Your task to perform on an android device: change your default location settings in chrome Image 0: 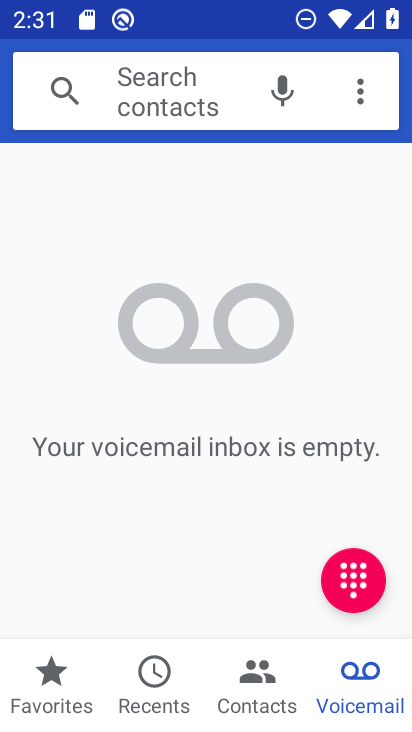
Step 0: press home button
Your task to perform on an android device: change your default location settings in chrome Image 1: 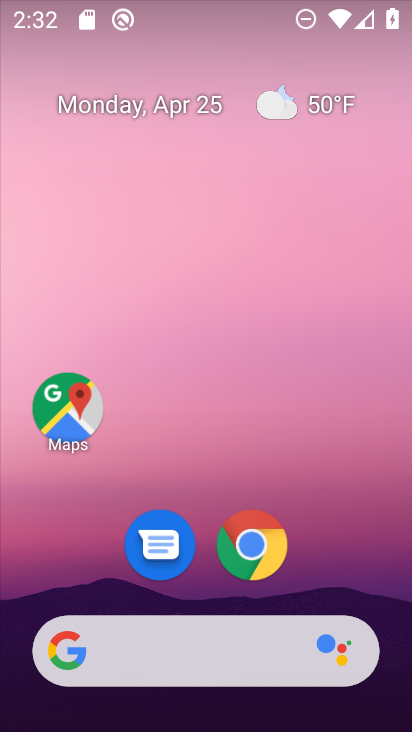
Step 1: click (224, 547)
Your task to perform on an android device: change your default location settings in chrome Image 2: 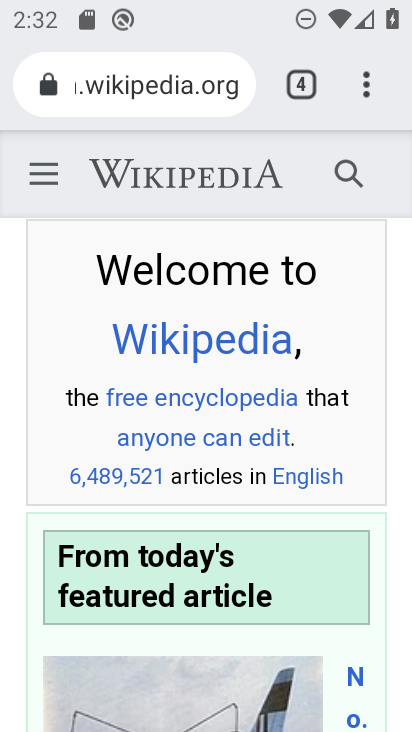
Step 2: click (368, 81)
Your task to perform on an android device: change your default location settings in chrome Image 3: 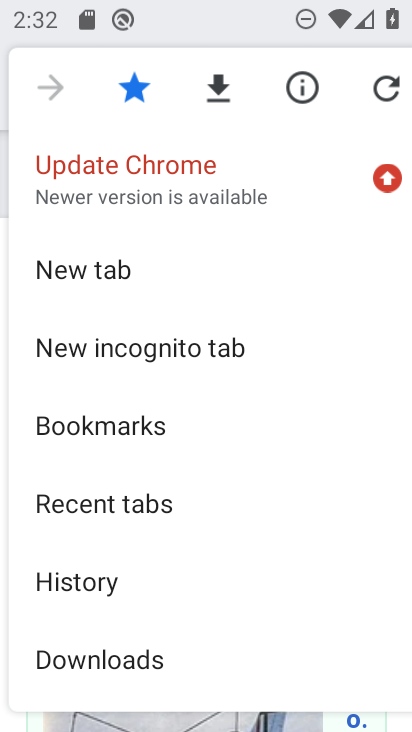
Step 3: drag from (225, 612) to (215, 209)
Your task to perform on an android device: change your default location settings in chrome Image 4: 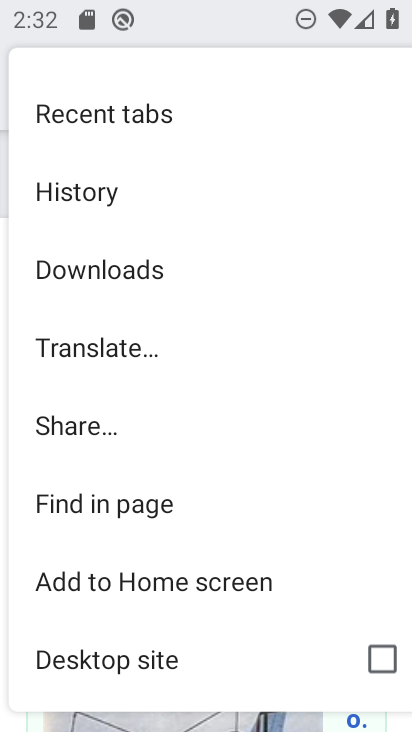
Step 4: drag from (206, 592) to (223, 133)
Your task to perform on an android device: change your default location settings in chrome Image 5: 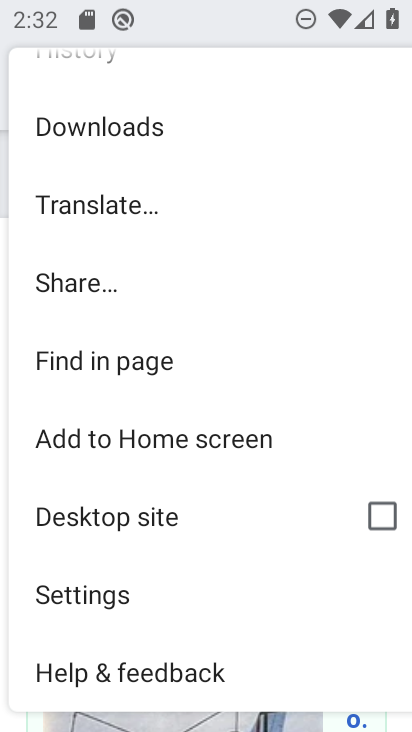
Step 5: click (122, 582)
Your task to perform on an android device: change your default location settings in chrome Image 6: 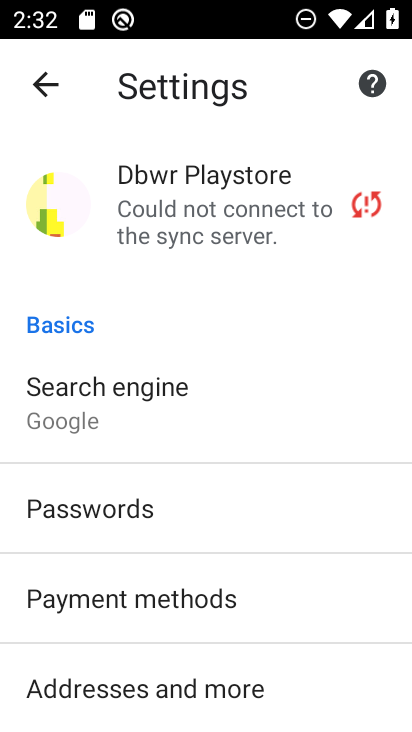
Step 6: drag from (265, 612) to (233, 115)
Your task to perform on an android device: change your default location settings in chrome Image 7: 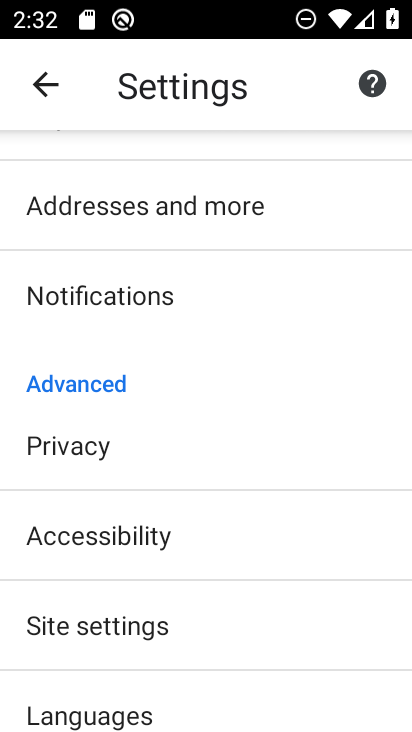
Step 7: drag from (237, 644) to (211, 329)
Your task to perform on an android device: change your default location settings in chrome Image 8: 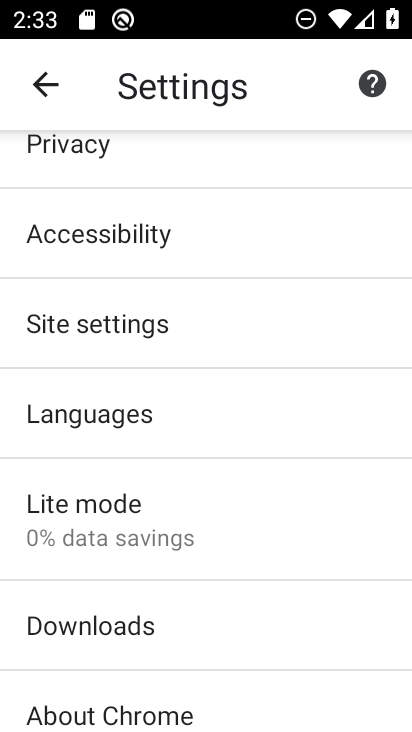
Step 8: click (184, 333)
Your task to perform on an android device: change your default location settings in chrome Image 9: 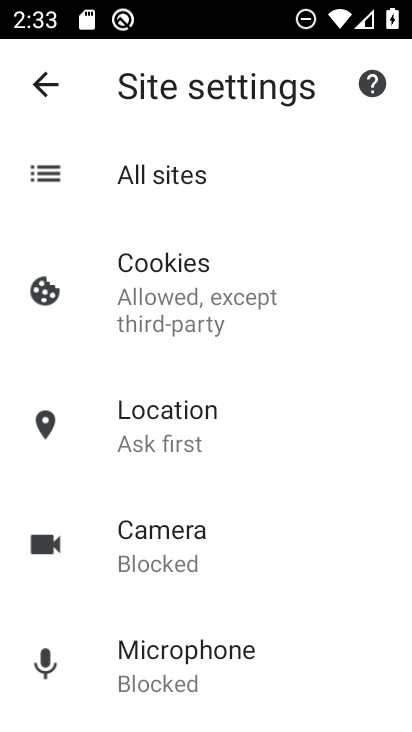
Step 9: click (213, 424)
Your task to perform on an android device: change your default location settings in chrome Image 10: 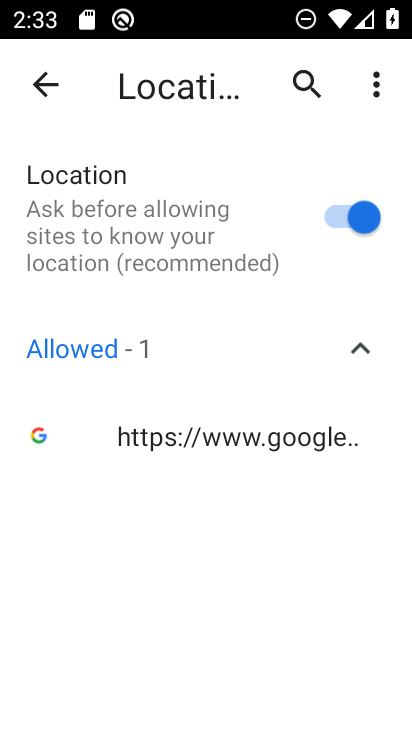
Step 10: click (363, 215)
Your task to perform on an android device: change your default location settings in chrome Image 11: 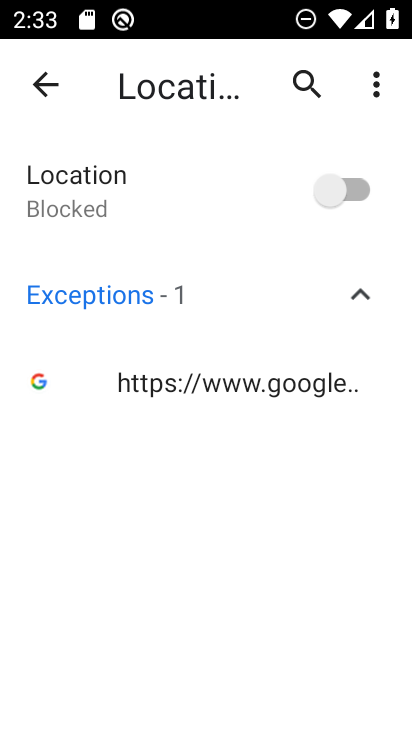
Step 11: task complete